Your task to perform on an android device: change text size in settings app Image 0: 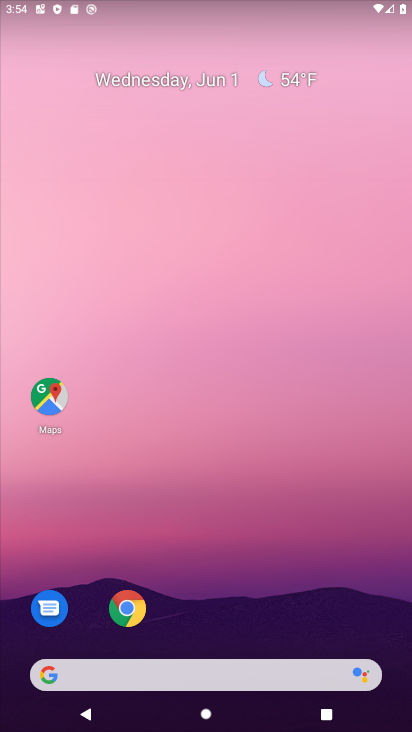
Step 0: drag from (171, 30) to (183, 703)
Your task to perform on an android device: change text size in settings app Image 1: 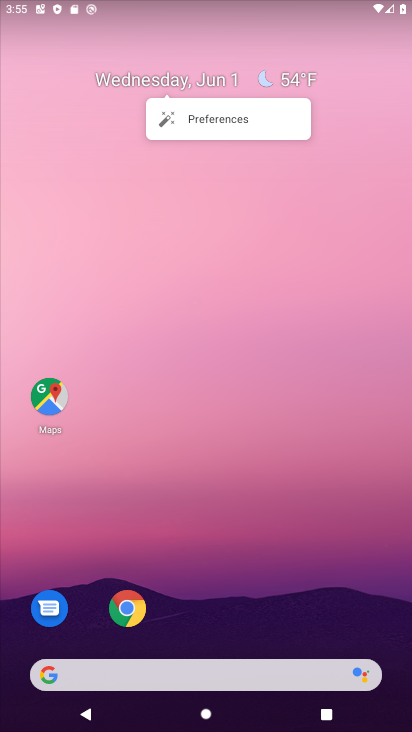
Step 1: drag from (147, 8) to (188, 573)
Your task to perform on an android device: change text size in settings app Image 2: 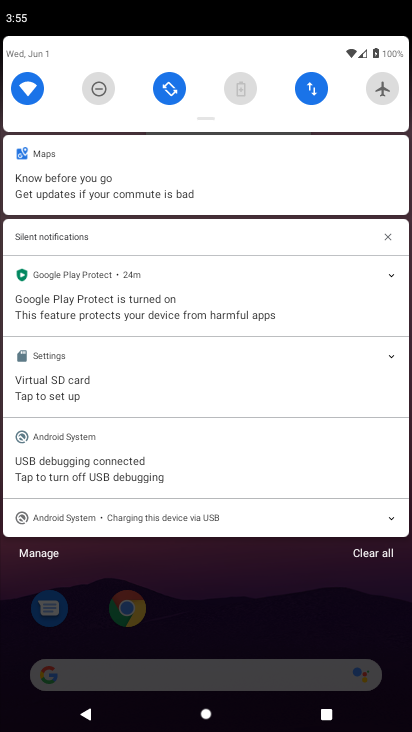
Step 2: drag from (196, 113) to (199, 633)
Your task to perform on an android device: change text size in settings app Image 3: 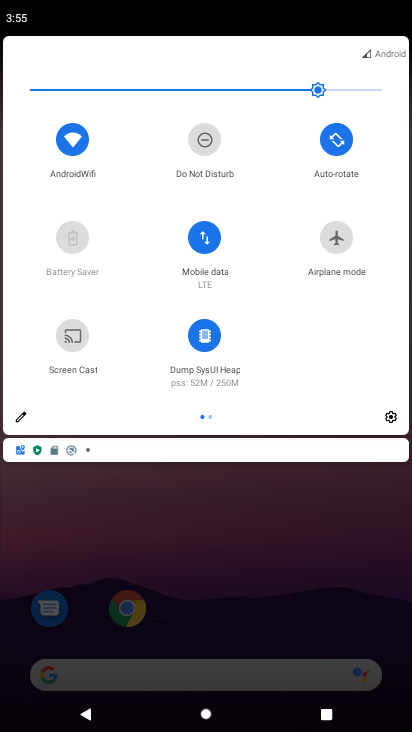
Step 3: click (392, 418)
Your task to perform on an android device: change text size in settings app Image 4: 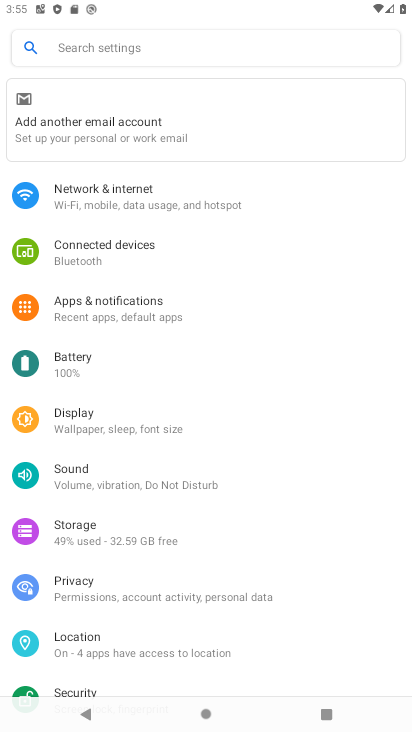
Step 4: click (118, 429)
Your task to perform on an android device: change text size in settings app Image 5: 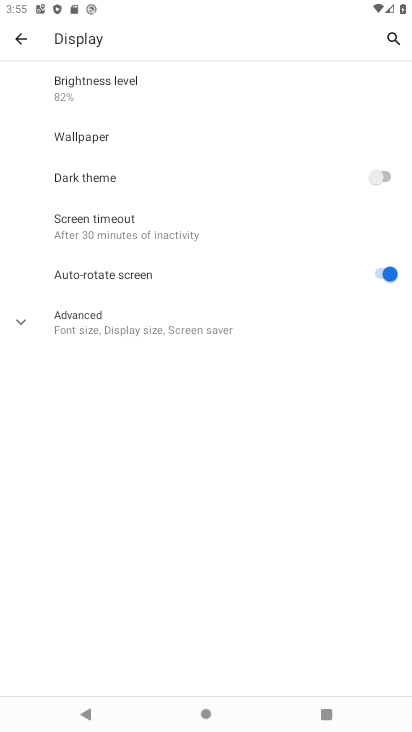
Step 5: click (101, 332)
Your task to perform on an android device: change text size in settings app Image 6: 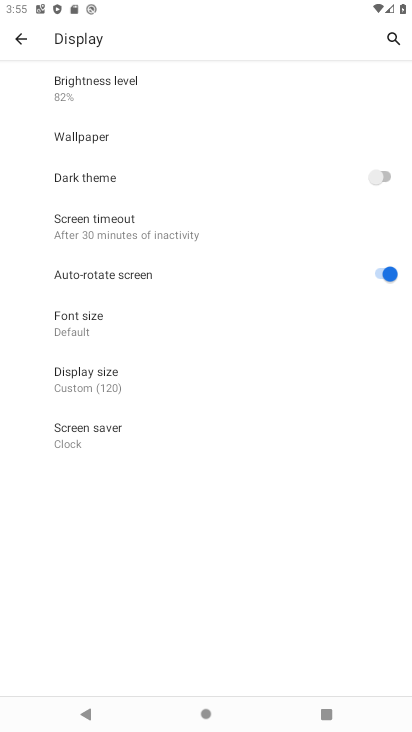
Step 6: click (78, 332)
Your task to perform on an android device: change text size in settings app Image 7: 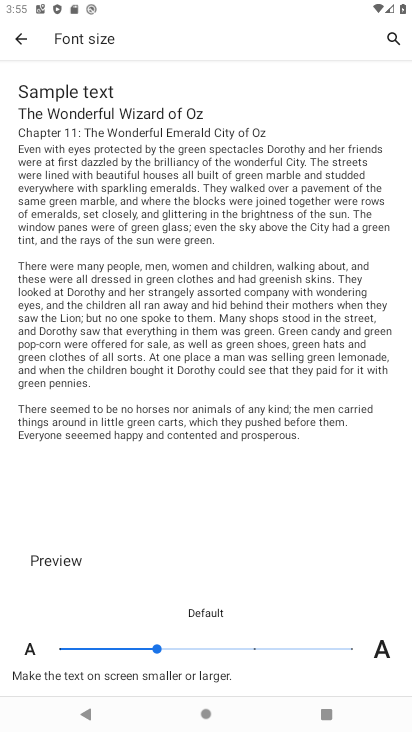
Step 7: click (63, 647)
Your task to perform on an android device: change text size in settings app Image 8: 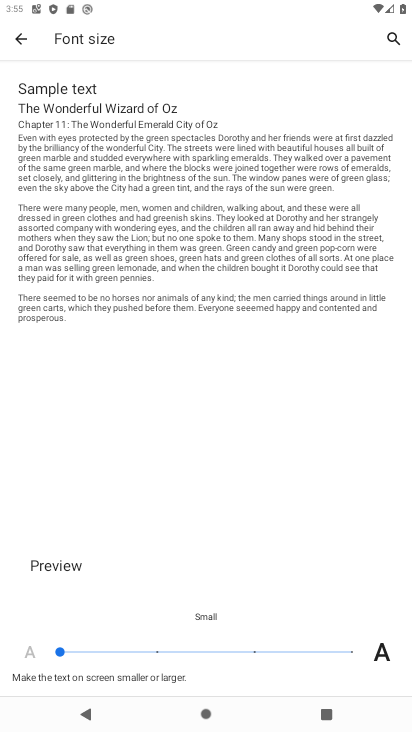
Step 8: task complete